Your task to perform on an android device: open sync settings in chrome Image 0: 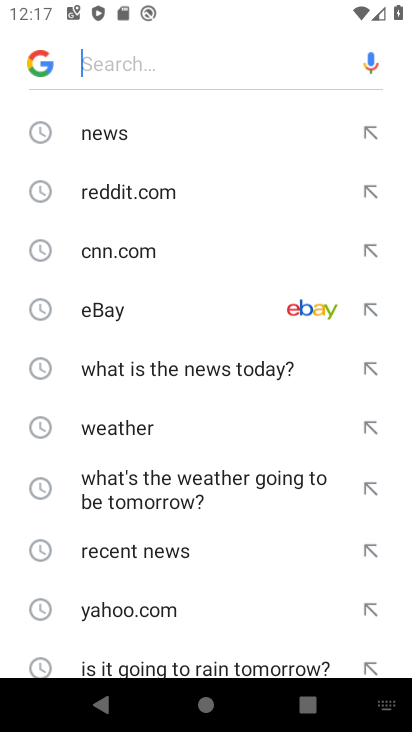
Step 0: press home button
Your task to perform on an android device: open sync settings in chrome Image 1: 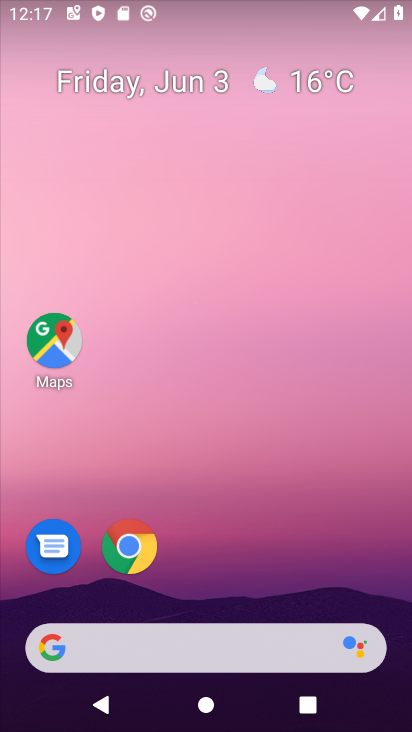
Step 1: click (126, 542)
Your task to perform on an android device: open sync settings in chrome Image 2: 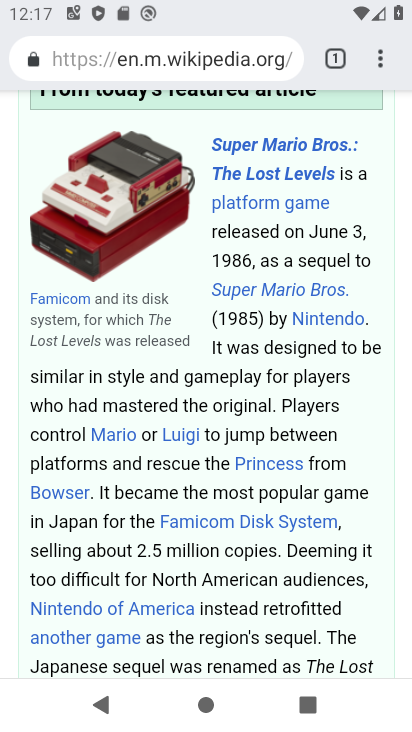
Step 2: click (382, 59)
Your task to perform on an android device: open sync settings in chrome Image 3: 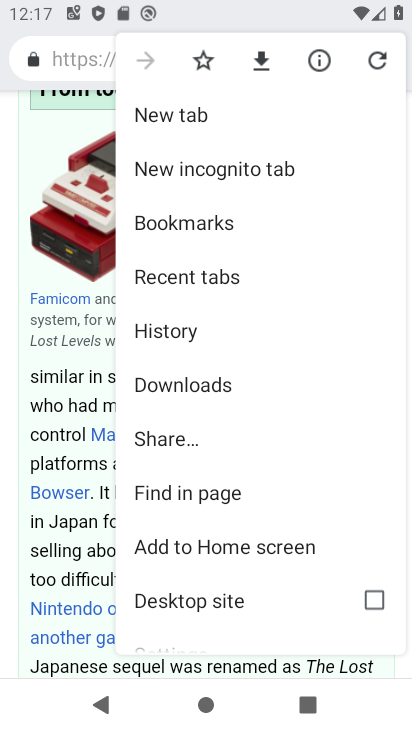
Step 3: drag from (236, 581) to (197, 316)
Your task to perform on an android device: open sync settings in chrome Image 4: 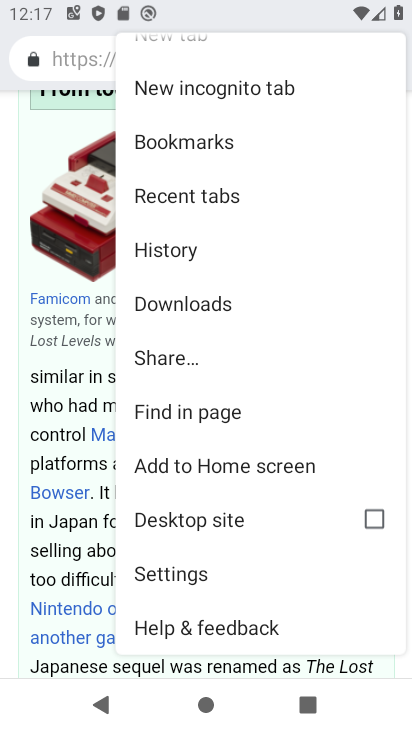
Step 4: click (191, 574)
Your task to perform on an android device: open sync settings in chrome Image 5: 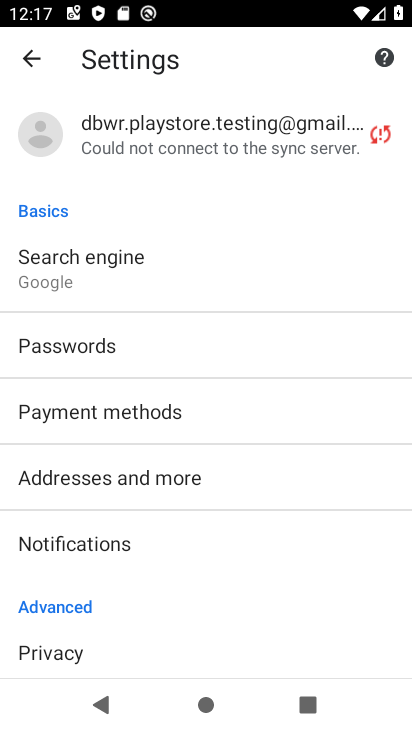
Step 5: click (148, 123)
Your task to perform on an android device: open sync settings in chrome Image 6: 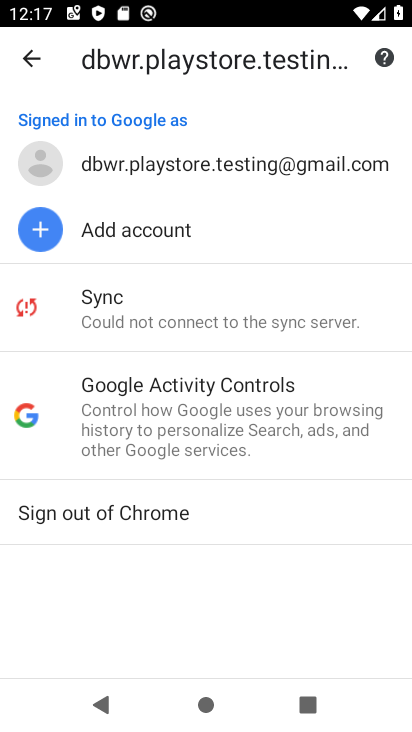
Step 6: click (106, 328)
Your task to perform on an android device: open sync settings in chrome Image 7: 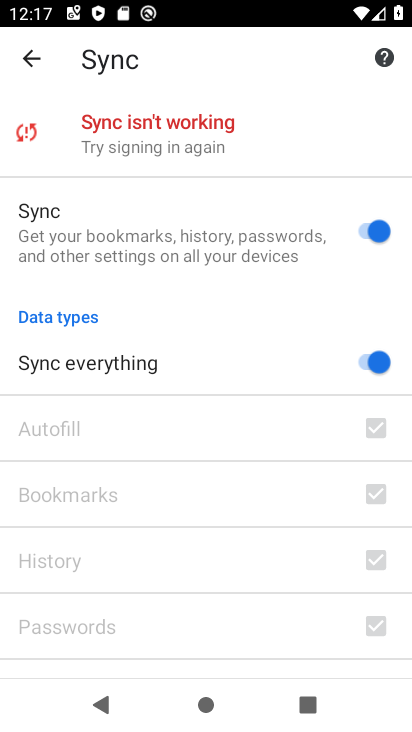
Step 7: task complete